Your task to perform on an android device: Open Google Chrome Image 0: 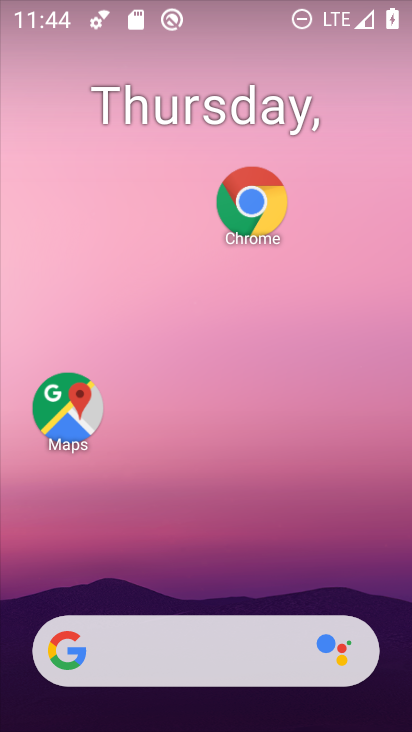
Step 0: click (257, 194)
Your task to perform on an android device: Open Google Chrome Image 1: 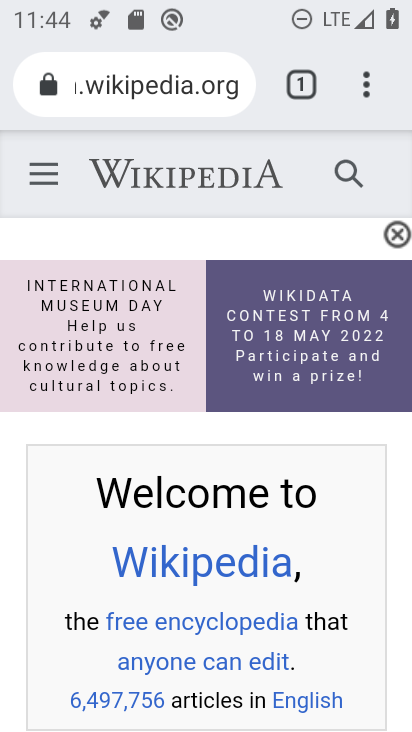
Step 1: task complete